Your task to perform on an android device: turn on bluetooth scan Image 0: 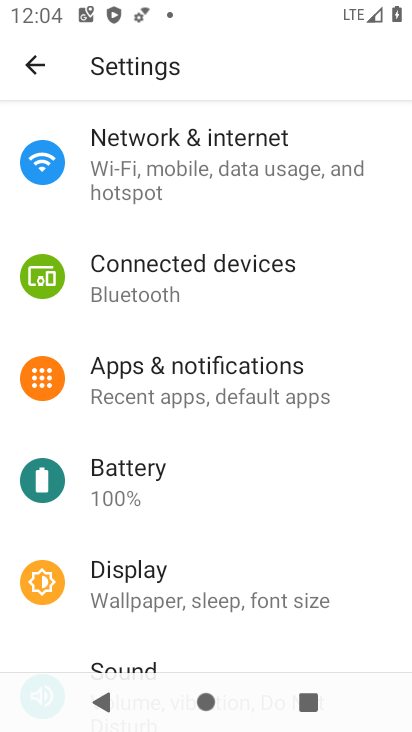
Step 0: click (207, 166)
Your task to perform on an android device: turn on bluetooth scan Image 1: 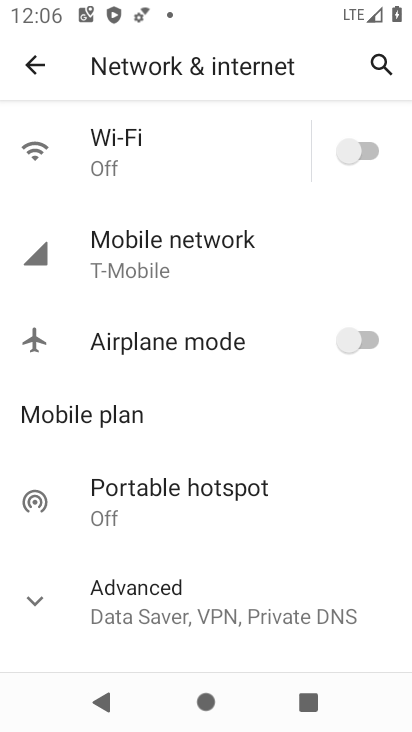
Step 1: drag from (219, 583) to (295, 105)
Your task to perform on an android device: turn on bluetooth scan Image 2: 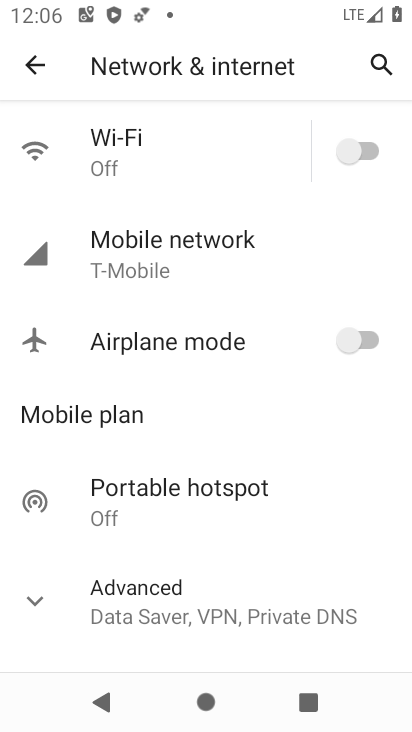
Step 2: click (235, 599)
Your task to perform on an android device: turn on bluetooth scan Image 3: 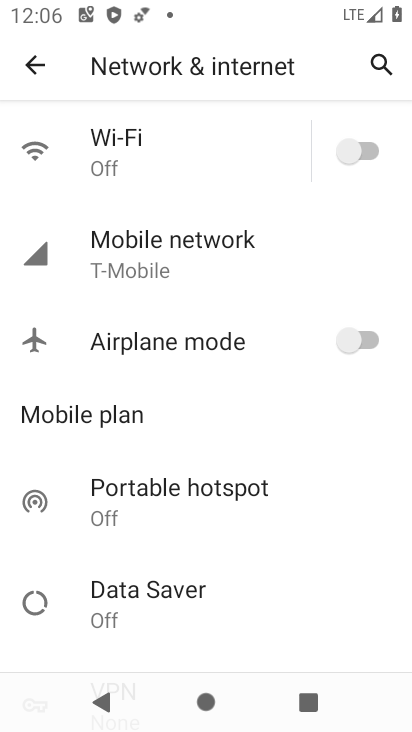
Step 3: click (234, 615)
Your task to perform on an android device: turn on bluetooth scan Image 4: 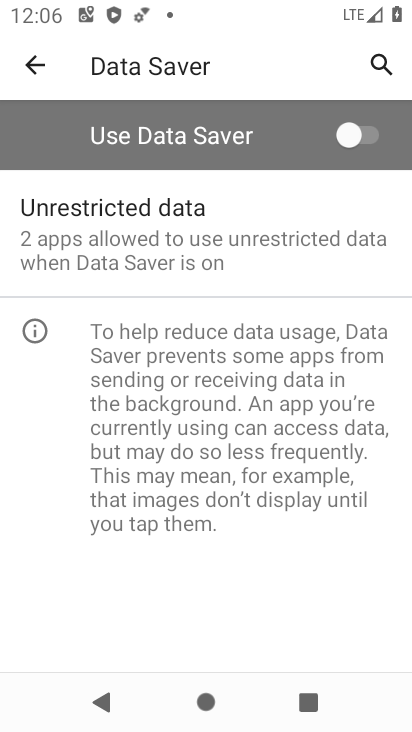
Step 4: press back button
Your task to perform on an android device: turn on bluetooth scan Image 5: 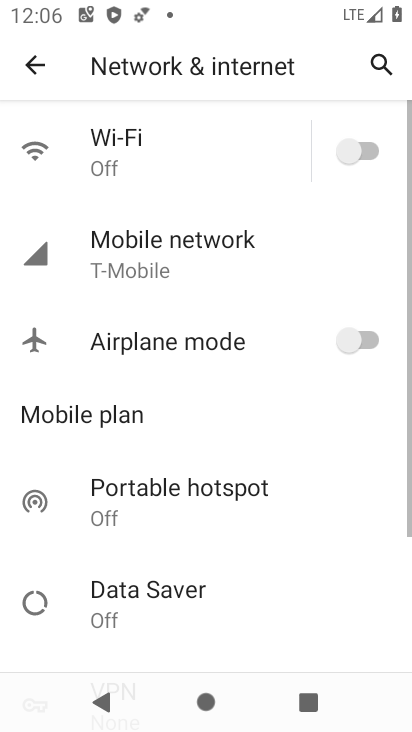
Step 5: drag from (277, 629) to (380, 142)
Your task to perform on an android device: turn on bluetooth scan Image 6: 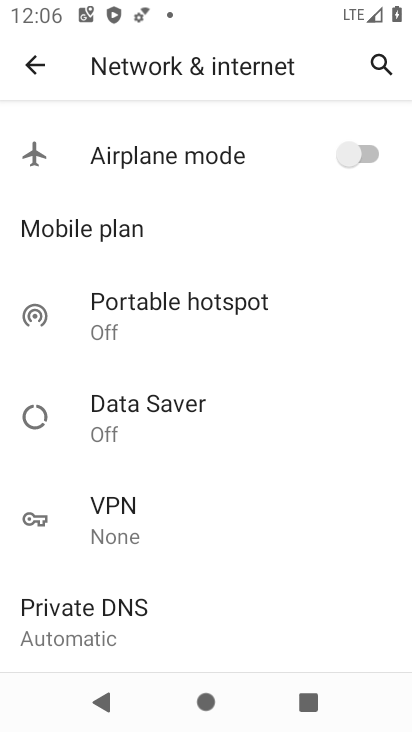
Step 6: press back button
Your task to perform on an android device: turn on bluetooth scan Image 7: 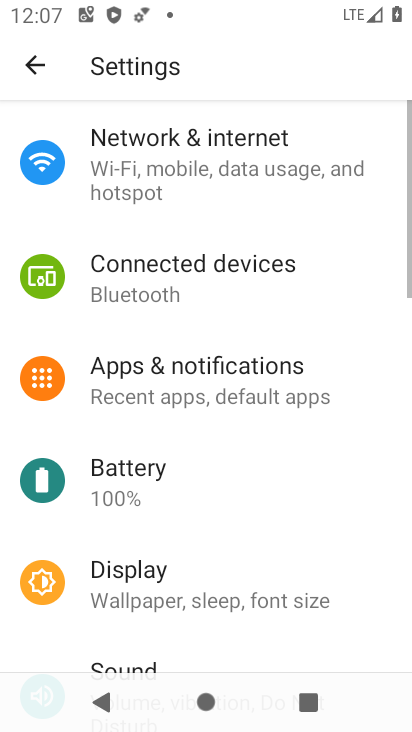
Step 7: drag from (264, 620) to (309, 85)
Your task to perform on an android device: turn on bluetooth scan Image 8: 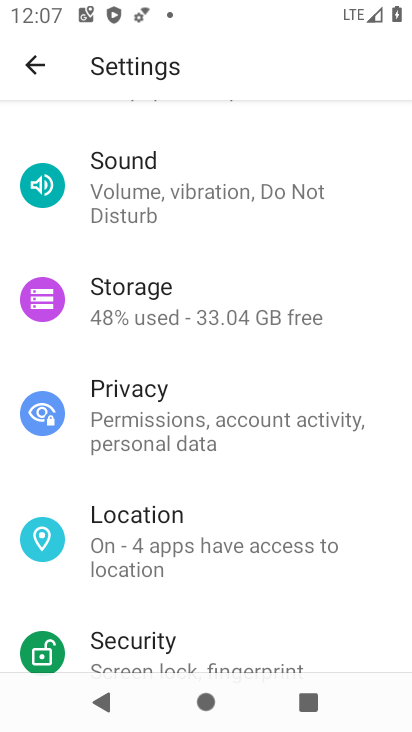
Step 8: click (259, 550)
Your task to perform on an android device: turn on bluetooth scan Image 9: 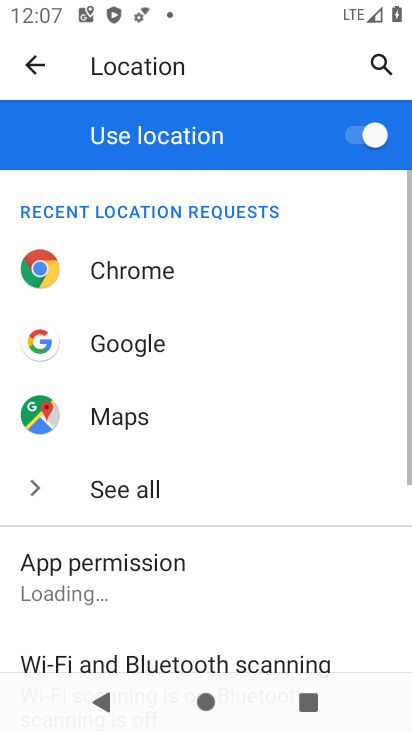
Step 9: drag from (321, 604) to (298, 108)
Your task to perform on an android device: turn on bluetooth scan Image 10: 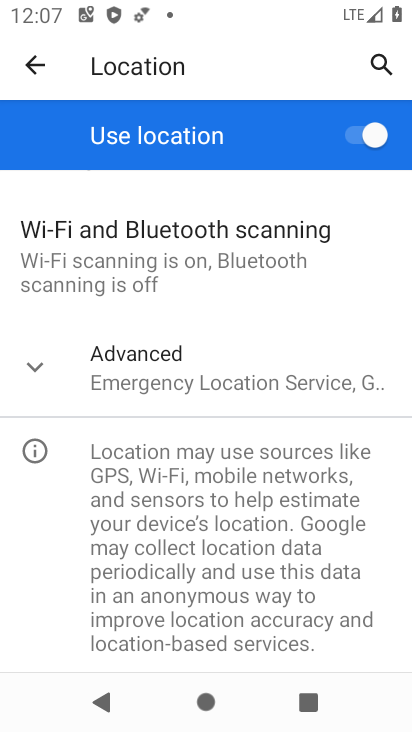
Step 10: click (339, 261)
Your task to perform on an android device: turn on bluetooth scan Image 11: 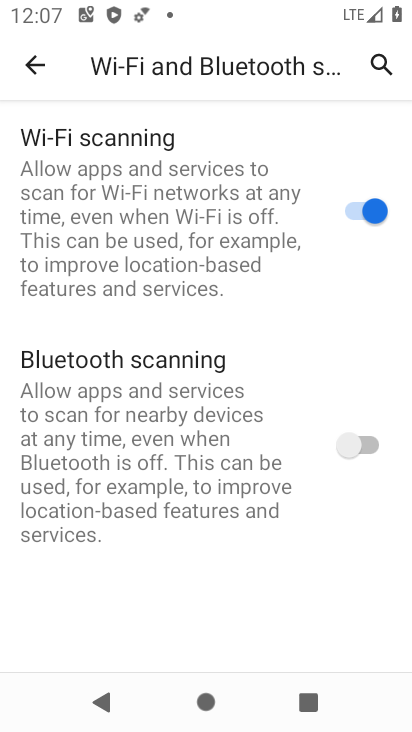
Step 11: click (370, 445)
Your task to perform on an android device: turn on bluetooth scan Image 12: 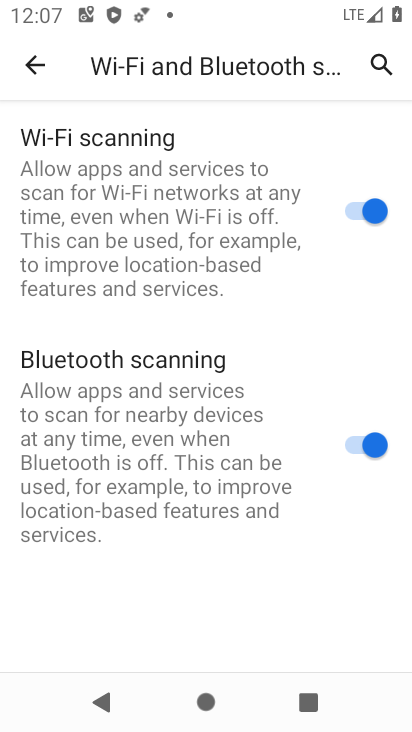
Step 12: task complete